Your task to perform on an android device: clear all cookies in the chrome app Image 0: 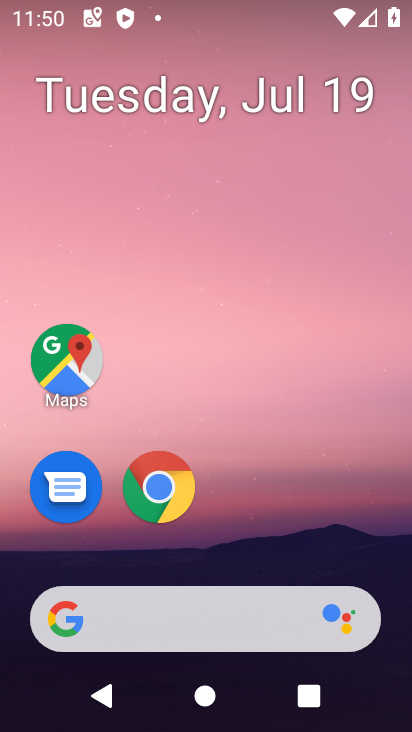
Step 0: click (168, 475)
Your task to perform on an android device: clear all cookies in the chrome app Image 1: 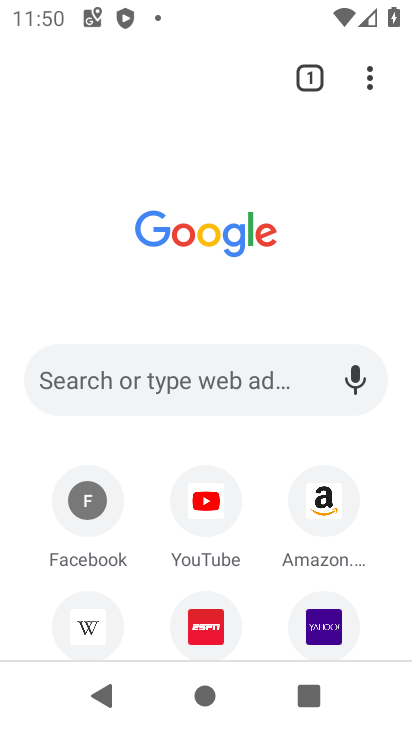
Step 1: drag from (362, 83) to (92, 550)
Your task to perform on an android device: clear all cookies in the chrome app Image 2: 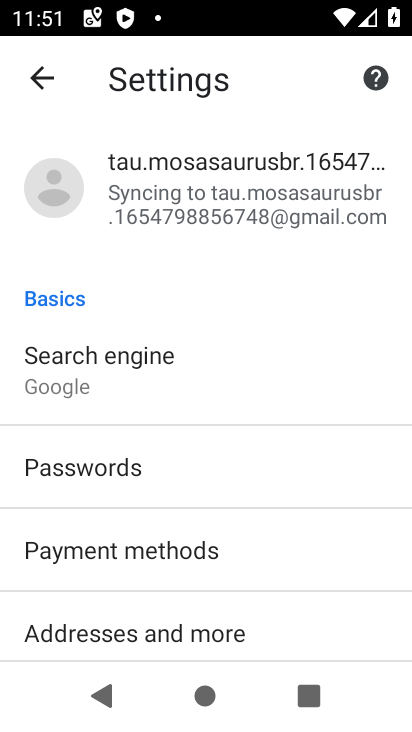
Step 2: drag from (153, 632) to (306, 124)
Your task to perform on an android device: clear all cookies in the chrome app Image 3: 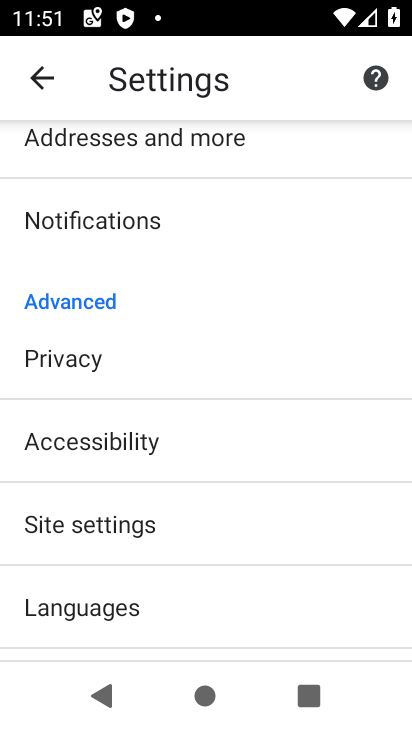
Step 3: click (123, 540)
Your task to perform on an android device: clear all cookies in the chrome app Image 4: 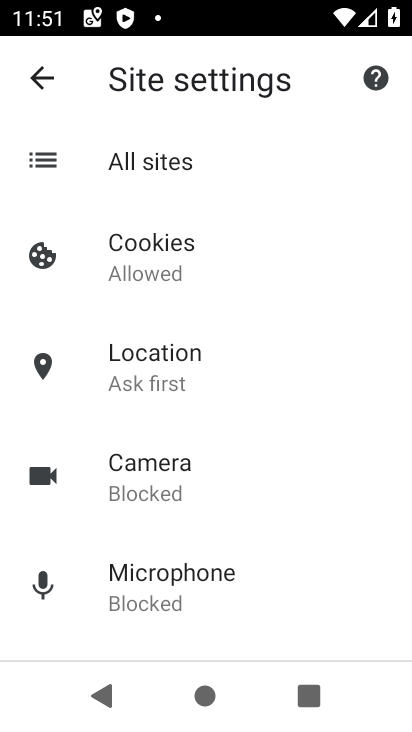
Step 4: click (148, 231)
Your task to perform on an android device: clear all cookies in the chrome app Image 5: 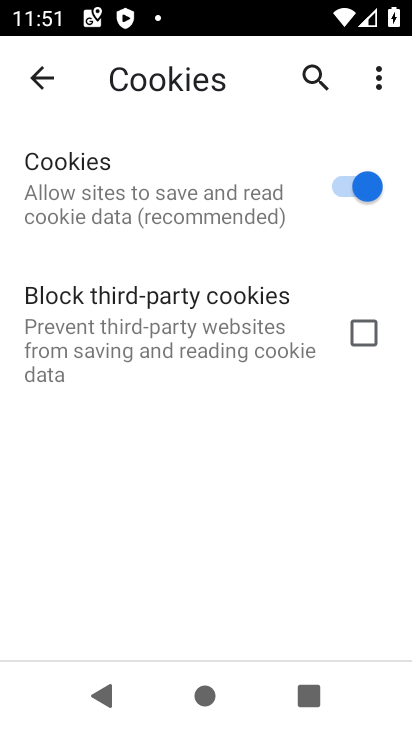
Step 5: click (40, 76)
Your task to perform on an android device: clear all cookies in the chrome app Image 6: 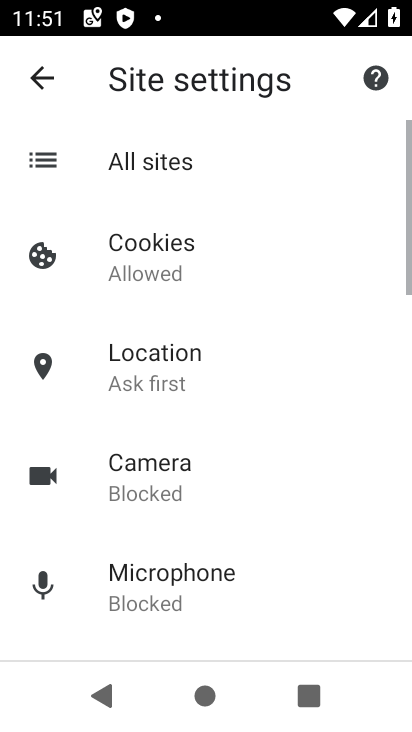
Step 6: click (42, 78)
Your task to perform on an android device: clear all cookies in the chrome app Image 7: 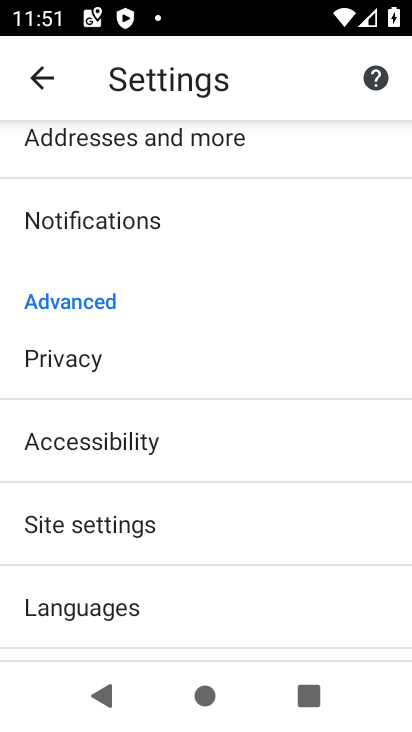
Step 7: click (48, 68)
Your task to perform on an android device: clear all cookies in the chrome app Image 8: 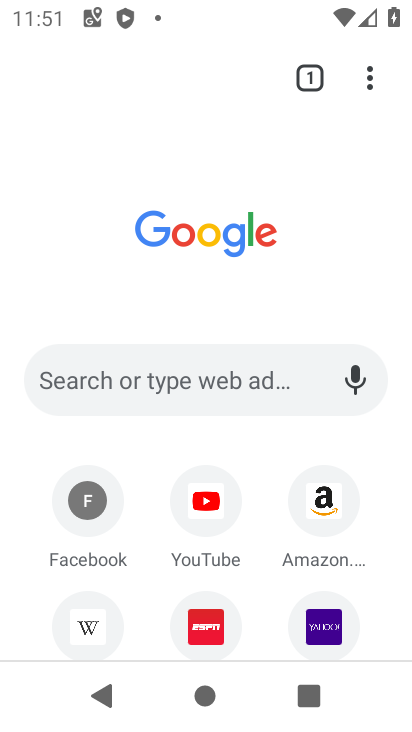
Step 8: drag from (373, 81) to (75, 435)
Your task to perform on an android device: clear all cookies in the chrome app Image 9: 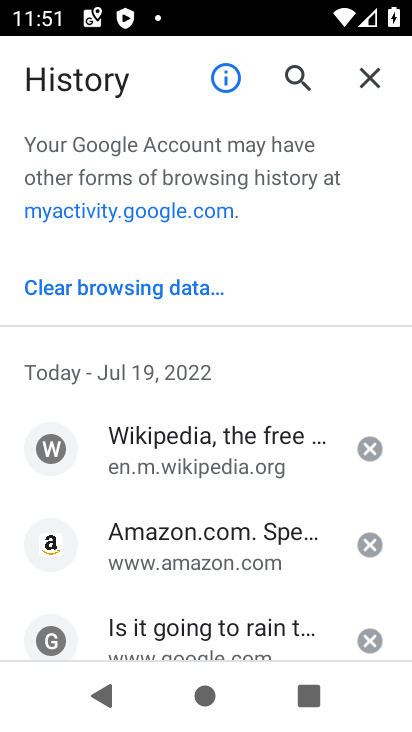
Step 9: click (149, 269)
Your task to perform on an android device: clear all cookies in the chrome app Image 10: 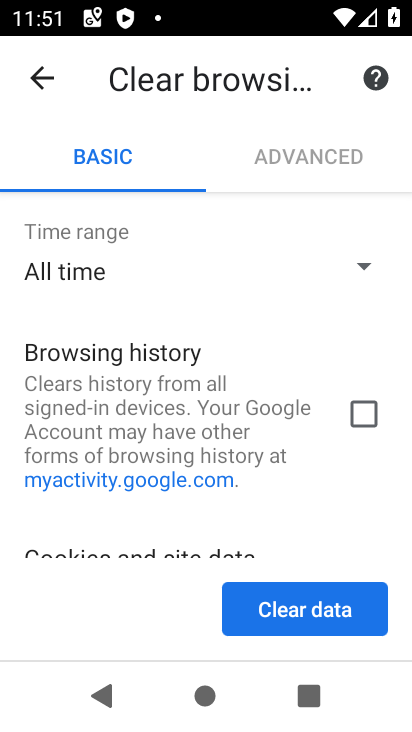
Step 10: drag from (239, 520) to (271, 194)
Your task to perform on an android device: clear all cookies in the chrome app Image 11: 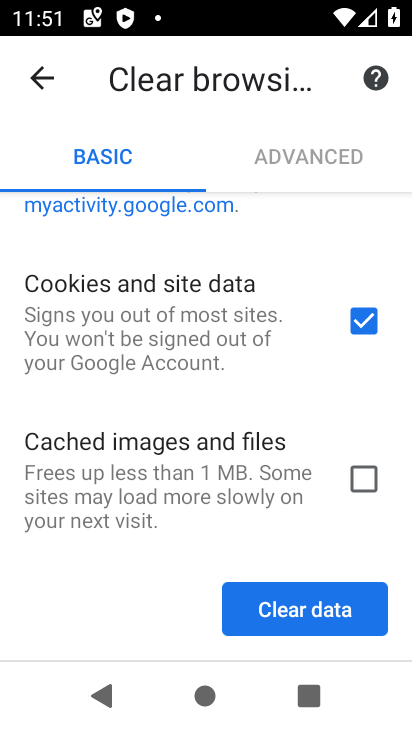
Step 11: click (304, 609)
Your task to perform on an android device: clear all cookies in the chrome app Image 12: 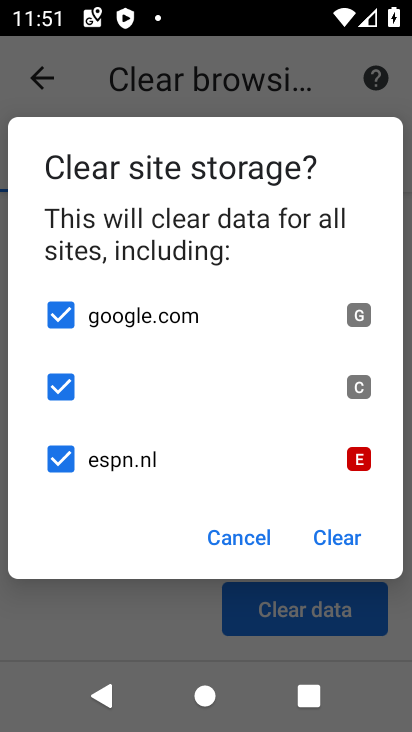
Step 12: click (341, 541)
Your task to perform on an android device: clear all cookies in the chrome app Image 13: 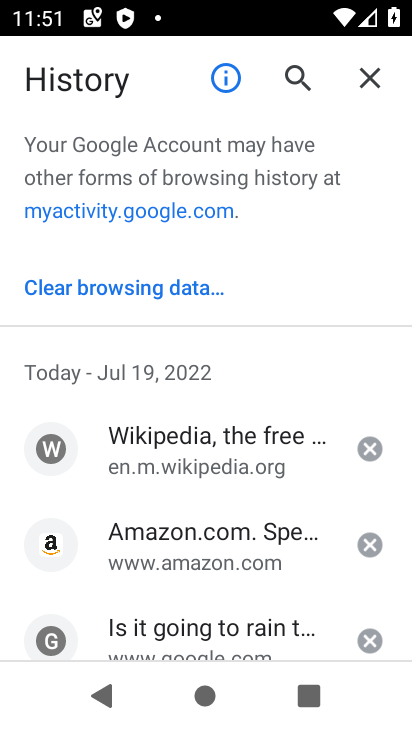
Step 13: task complete